Your task to perform on an android device: manage bookmarks in the chrome app Image 0: 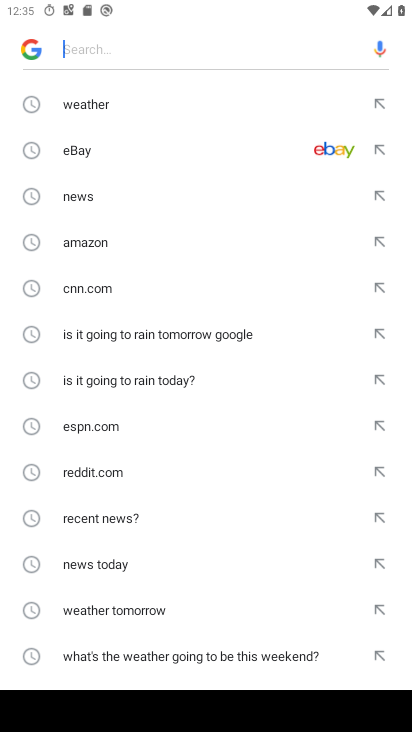
Step 0: press home button
Your task to perform on an android device: manage bookmarks in the chrome app Image 1: 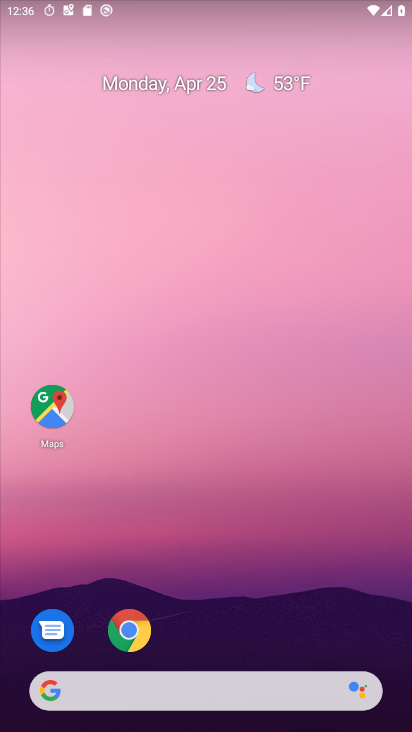
Step 1: click (125, 633)
Your task to perform on an android device: manage bookmarks in the chrome app Image 2: 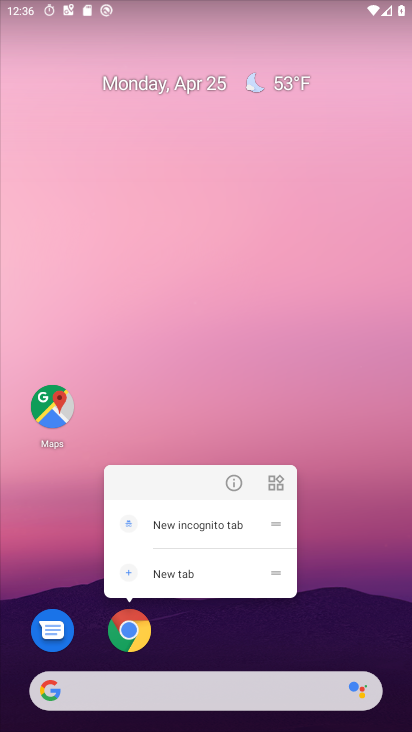
Step 2: click (240, 477)
Your task to perform on an android device: manage bookmarks in the chrome app Image 3: 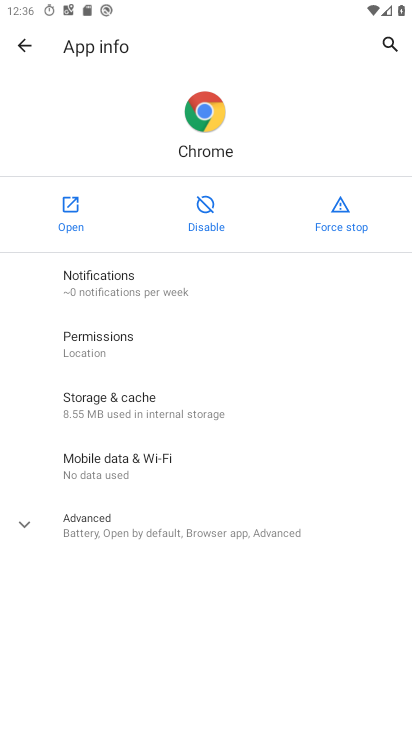
Step 3: click (59, 205)
Your task to perform on an android device: manage bookmarks in the chrome app Image 4: 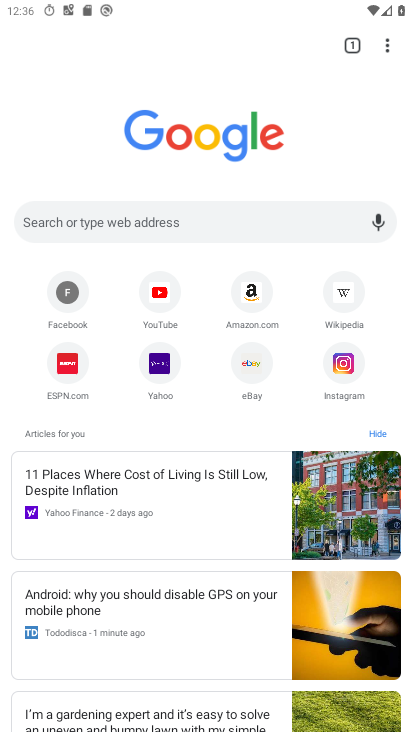
Step 4: task complete